Your task to perform on an android device: turn notification dots off Image 0: 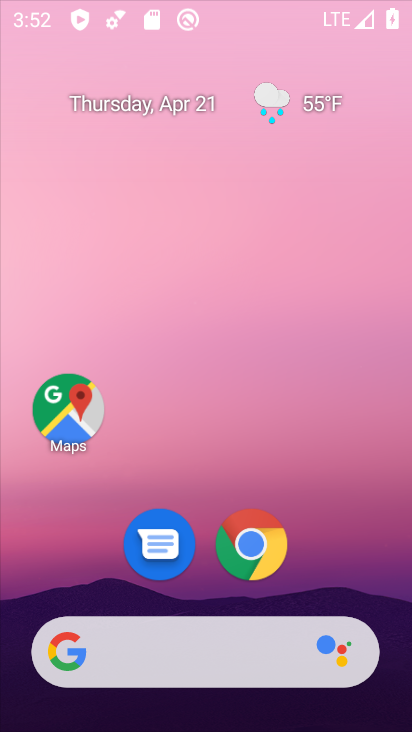
Step 0: click (243, 572)
Your task to perform on an android device: turn notification dots off Image 1: 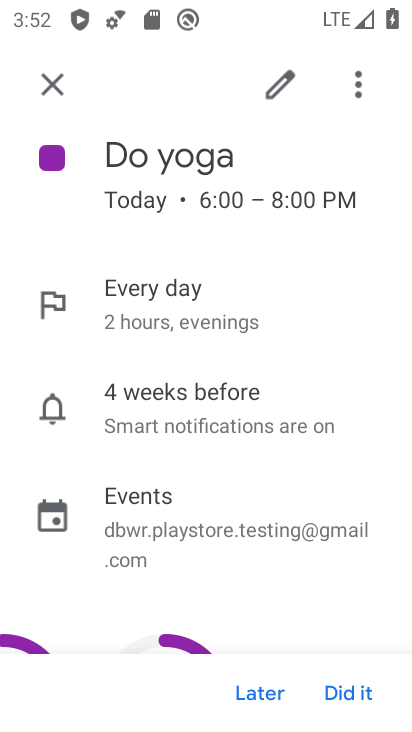
Step 1: press home button
Your task to perform on an android device: turn notification dots off Image 2: 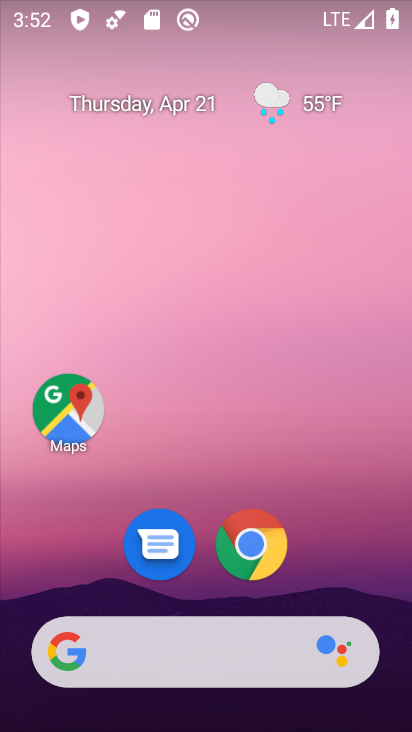
Step 2: drag from (249, 634) to (189, 136)
Your task to perform on an android device: turn notification dots off Image 3: 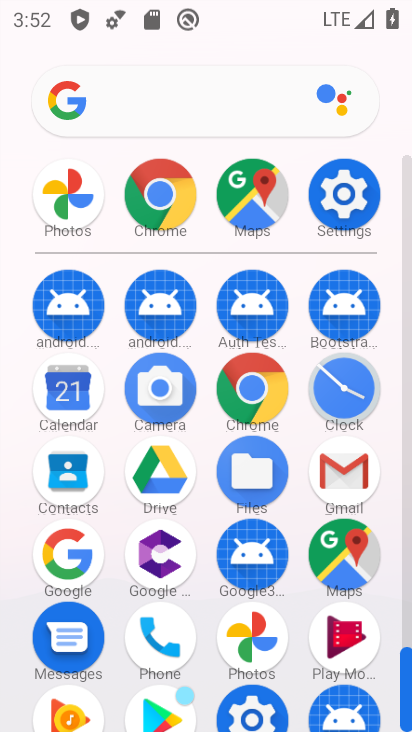
Step 3: click (328, 207)
Your task to perform on an android device: turn notification dots off Image 4: 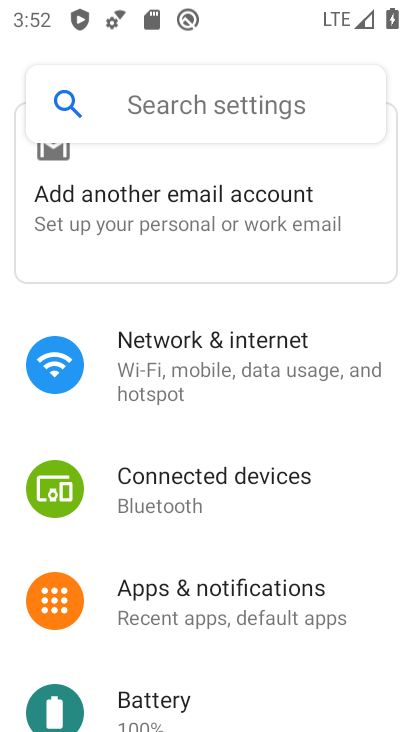
Step 4: click (233, 604)
Your task to perform on an android device: turn notification dots off Image 5: 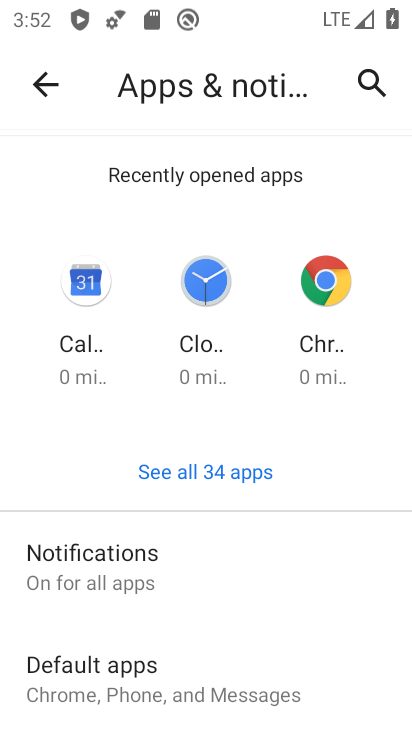
Step 5: click (180, 576)
Your task to perform on an android device: turn notification dots off Image 6: 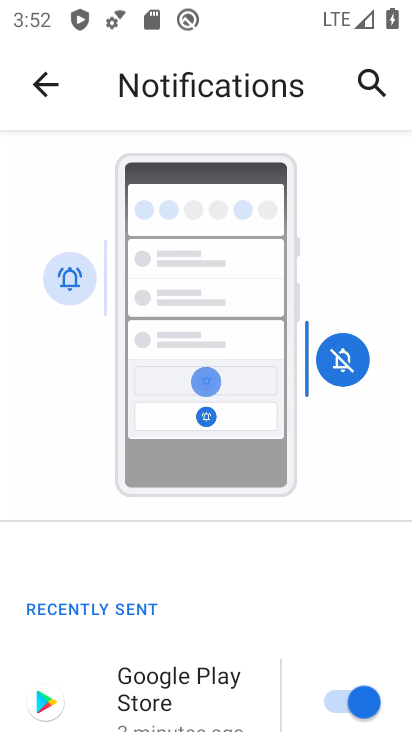
Step 6: drag from (240, 617) to (222, 16)
Your task to perform on an android device: turn notification dots off Image 7: 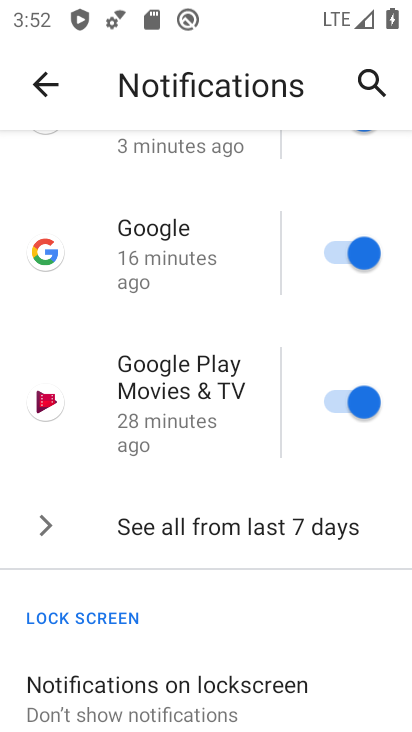
Step 7: drag from (234, 614) to (247, 38)
Your task to perform on an android device: turn notification dots off Image 8: 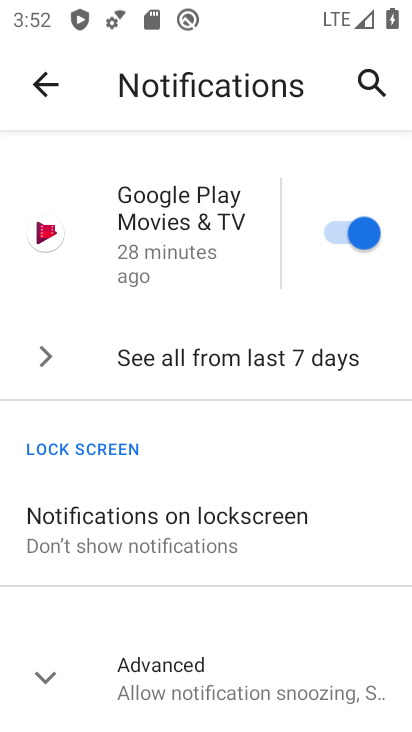
Step 8: click (220, 664)
Your task to perform on an android device: turn notification dots off Image 9: 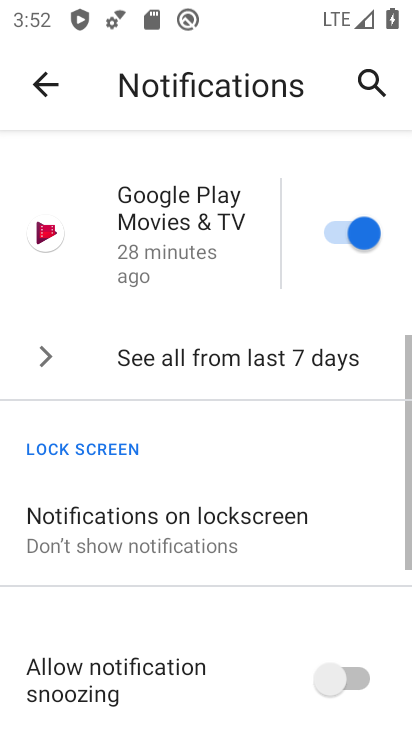
Step 9: drag from (280, 658) to (273, 188)
Your task to perform on an android device: turn notification dots off Image 10: 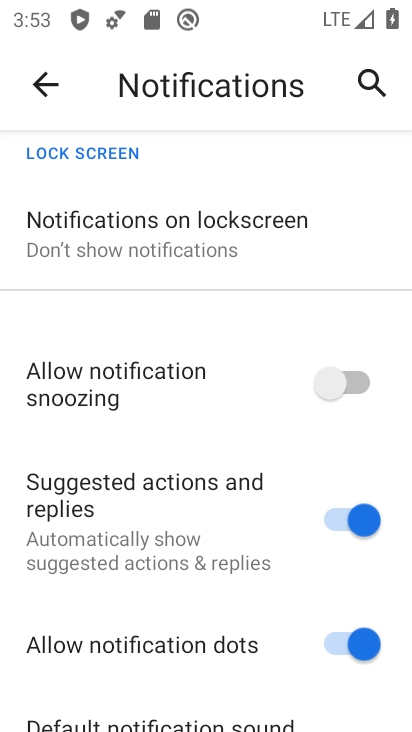
Step 10: click (334, 646)
Your task to perform on an android device: turn notification dots off Image 11: 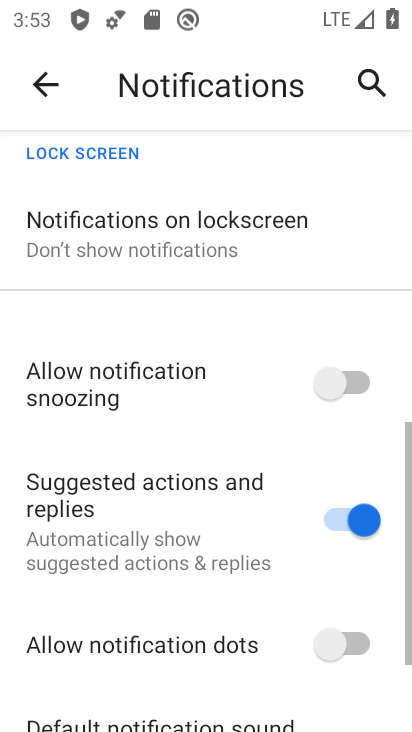
Step 11: task complete